Your task to perform on an android device: allow notifications from all sites in the chrome app Image 0: 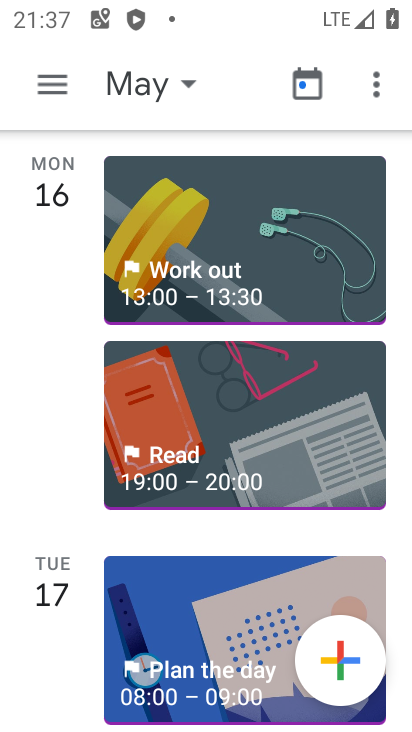
Step 0: press back button
Your task to perform on an android device: allow notifications from all sites in the chrome app Image 1: 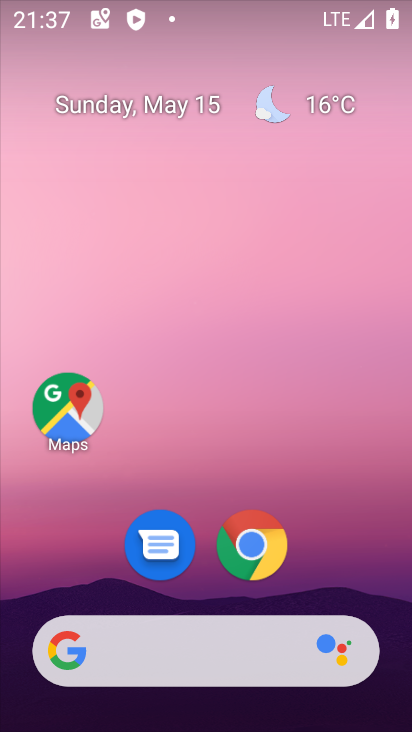
Step 1: click (253, 544)
Your task to perform on an android device: allow notifications from all sites in the chrome app Image 2: 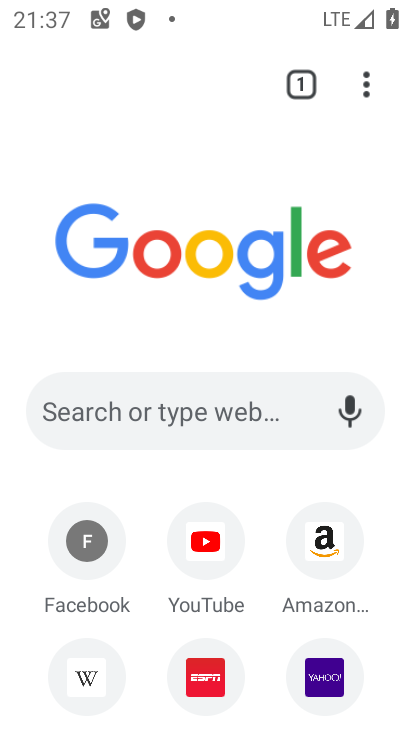
Step 2: click (366, 83)
Your task to perform on an android device: allow notifications from all sites in the chrome app Image 3: 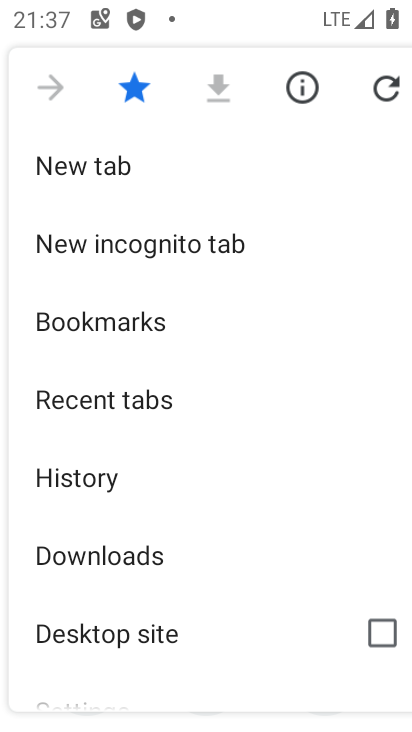
Step 3: drag from (163, 515) to (212, 405)
Your task to perform on an android device: allow notifications from all sites in the chrome app Image 4: 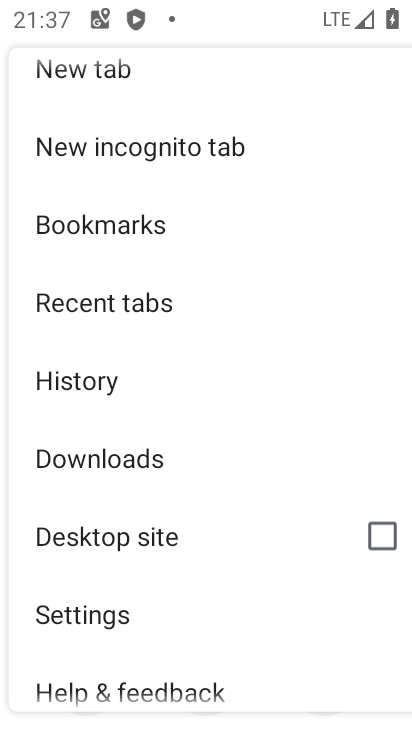
Step 4: drag from (120, 501) to (185, 399)
Your task to perform on an android device: allow notifications from all sites in the chrome app Image 5: 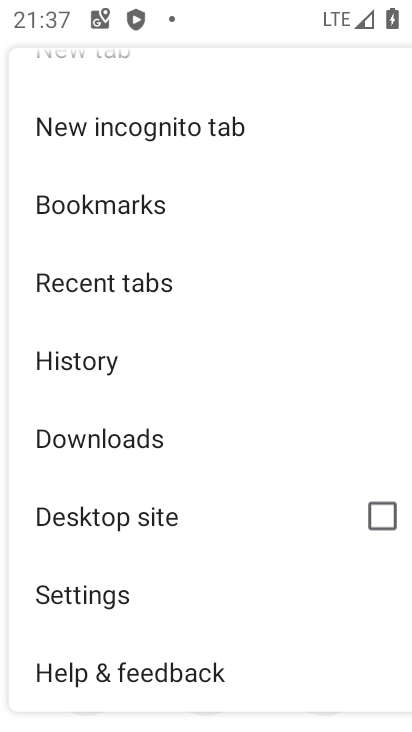
Step 5: click (83, 595)
Your task to perform on an android device: allow notifications from all sites in the chrome app Image 6: 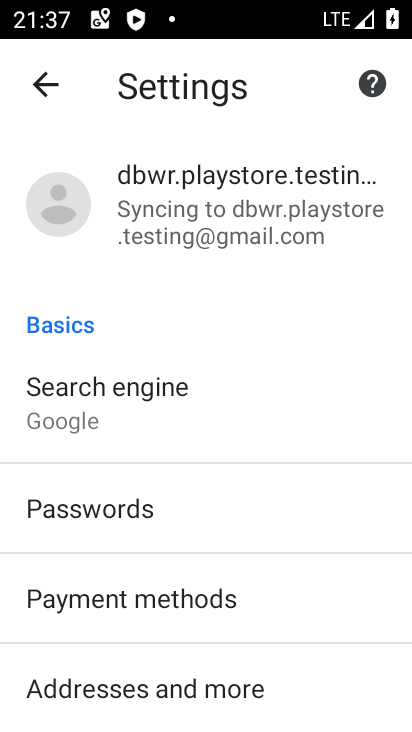
Step 6: drag from (94, 576) to (172, 464)
Your task to perform on an android device: allow notifications from all sites in the chrome app Image 7: 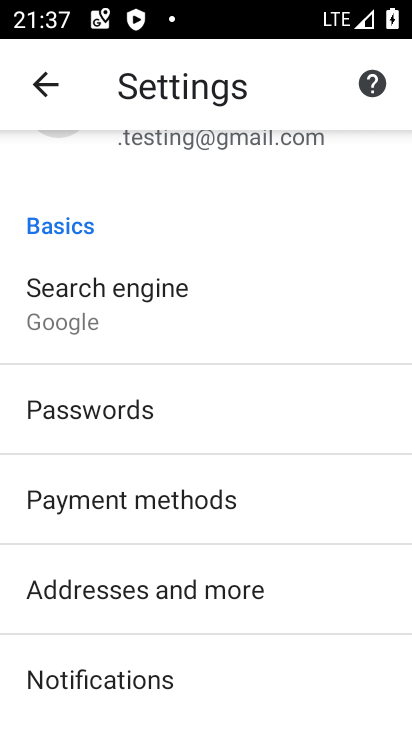
Step 7: drag from (120, 553) to (198, 437)
Your task to perform on an android device: allow notifications from all sites in the chrome app Image 8: 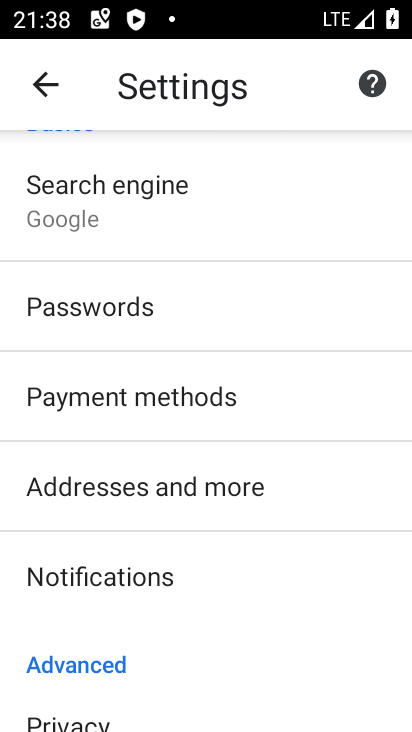
Step 8: drag from (175, 583) to (210, 442)
Your task to perform on an android device: allow notifications from all sites in the chrome app Image 9: 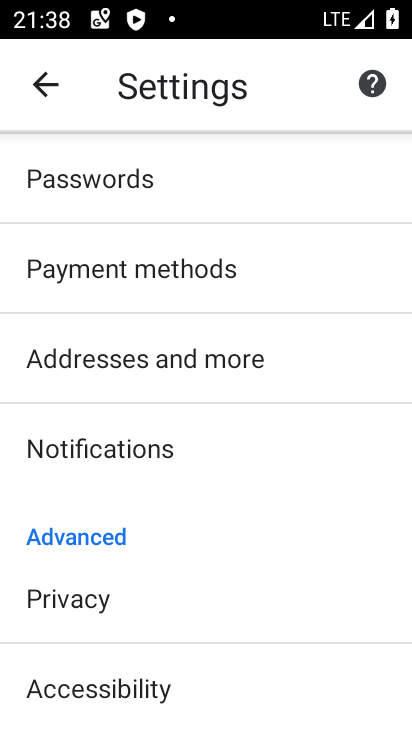
Step 9: drag from (142, 588) to (207, 458)
Your task to perform on an android device: allow notifications from all sites in the chrome app Image 10: 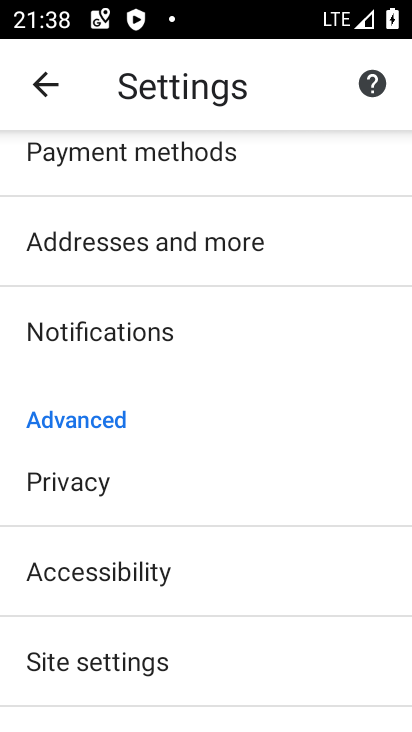
Step 10: click (114, 659)
Your task to perform on an android device: allow notifications from all sites in the chrome app Image 11: 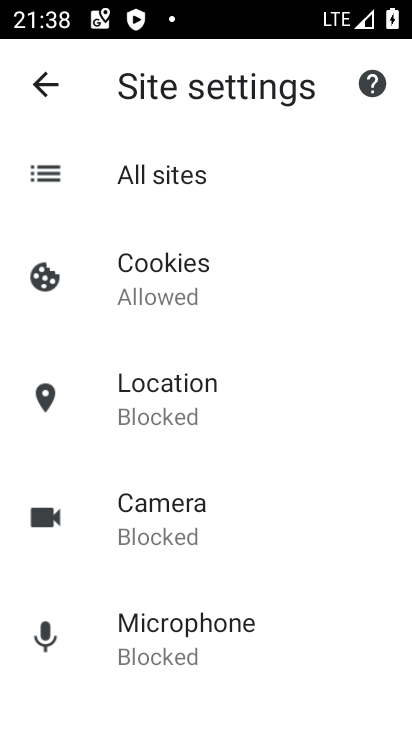
Step 11: drag from (157, 570) to (206, 422)
Your task to perform on an android device: allow notifications from all sites in the chrome app Image 12: 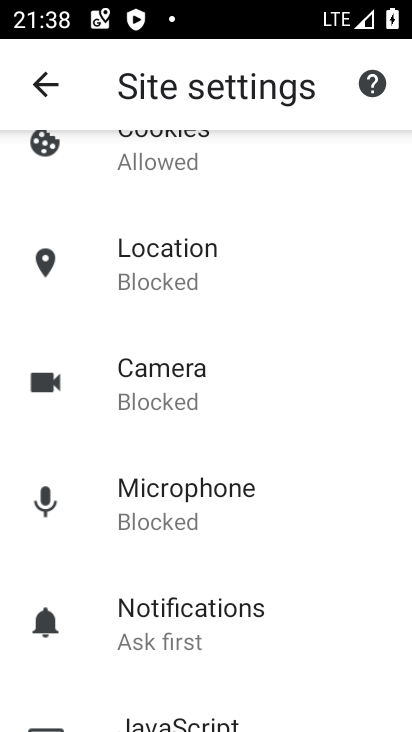
Step 12: click (184, 613)
Your task to perform on an android device: allow notifications from all sites in the chrome app Image 13: 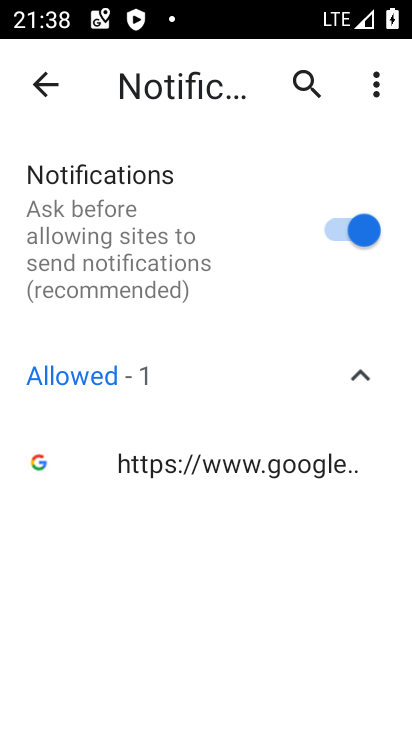
Step 13: task complete